Your task to perform on an android device: turn off location history Image 0: 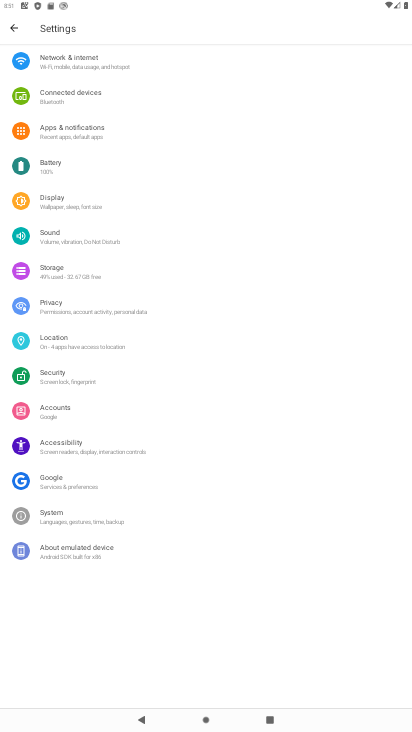
Step 0: click (89, 349)
Your task to perform on an android device: turn off location history Image 1: 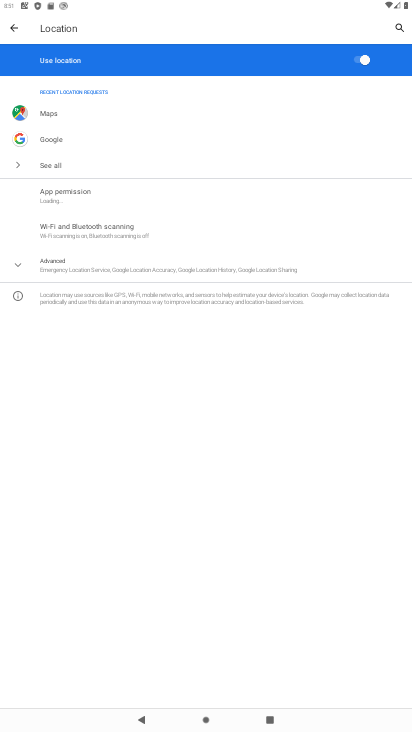
Step 1: task complete